Your task to perform on an android device: refresh tabs in the chrome app Image 0: 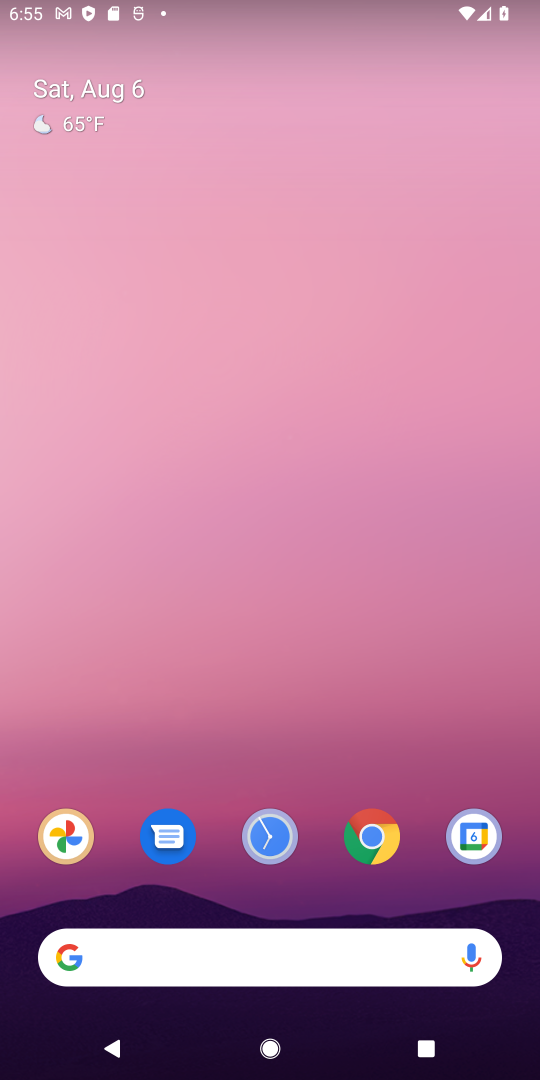
Step 0: drag from (443, 864) to (343, 67)
Your task to perform on an android device: refresh tabs in the chrome app Image 1: 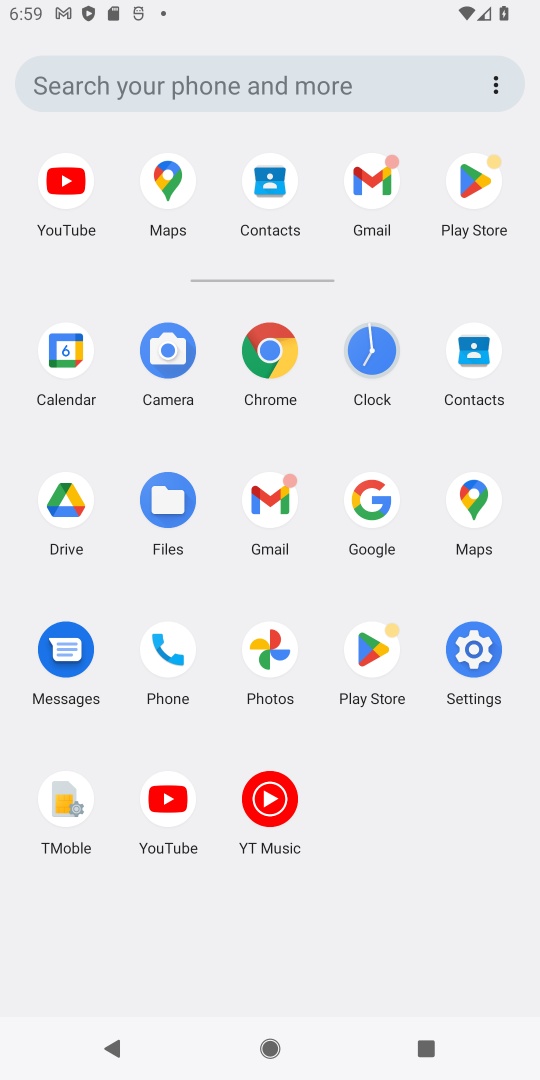
Step 1: click (274, 359)
Your task to perform on an android device: refresh tabs in the chrome app Image 2: 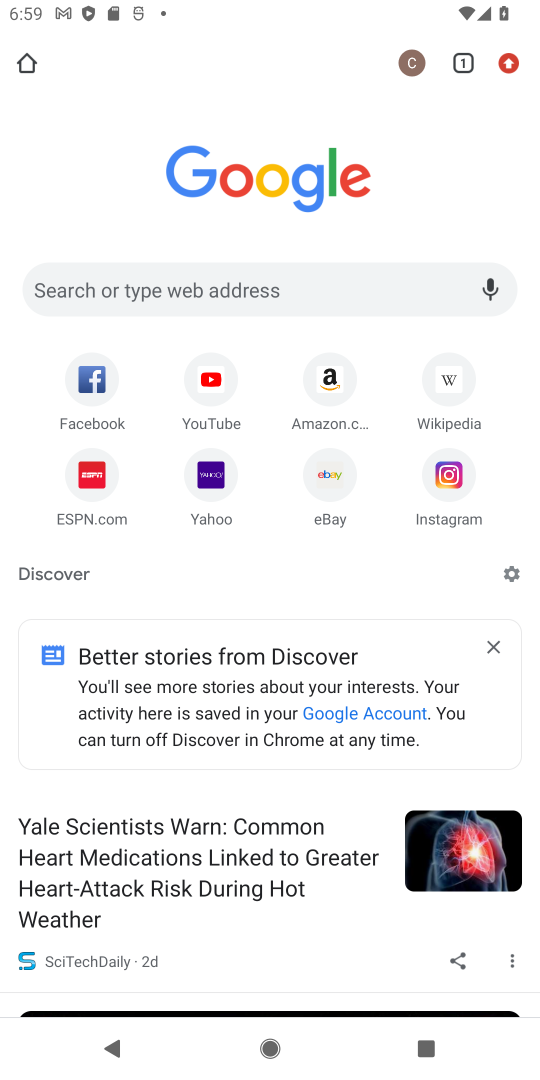
Step 2: click (503, 59)
Your task to perform on an android device: refresh tabs in the chrome app Image 3: 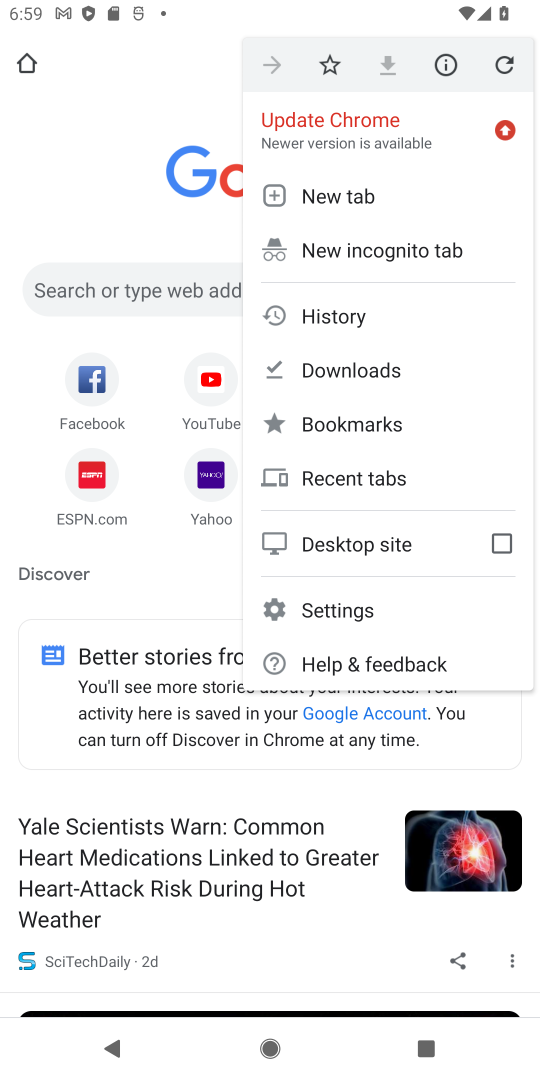
Step 3: click (504, 73)
Your task to perform on an android device: refresh tabs in the chrome app Image 4: 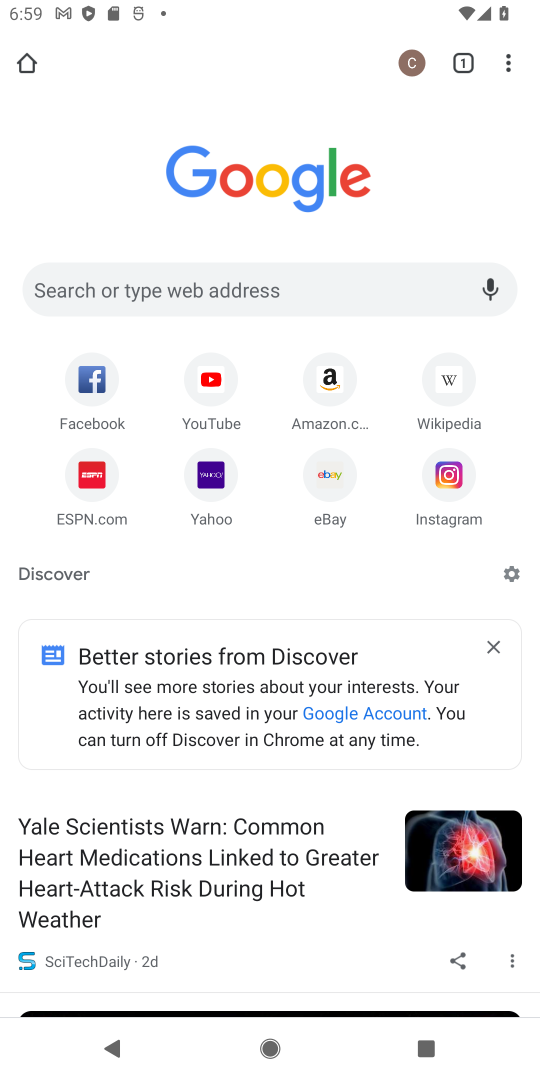
Step 4: task complete